Your task to perform on an android device: add a label to a message in the gmail app Image 0: 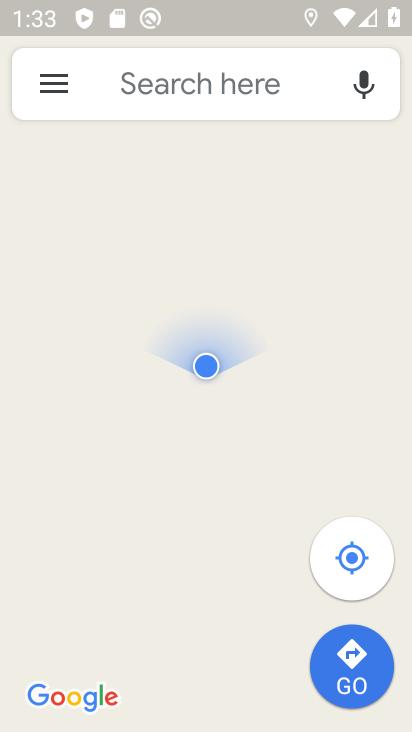
Step 0: press home button
Your task to perform on an android device: add a label to a message in the gmail app Image 1: 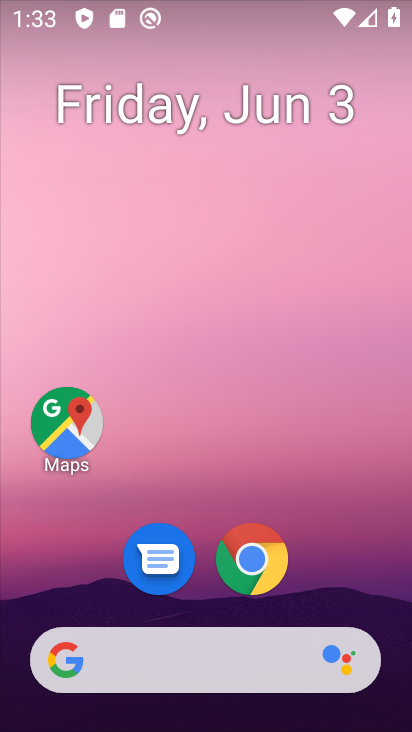
Step 1: drag from (331, 583) to (295, 245)
Your task to perform on an android device: add a label to a message in the gmail app Image 2: 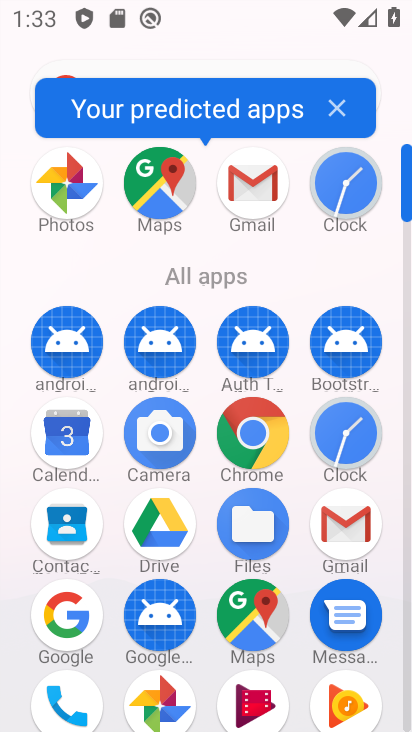
Step 2: click (338, 526)
Your task to perform on an android device: add a label to a message in the gmail app Image 3: 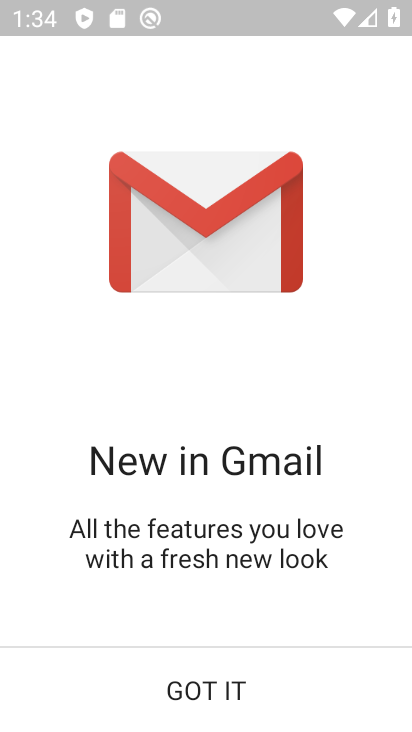
Step 3: click (203, 690)
Your task to perform on an android device: add a label to a message in the gmail app Image 4: 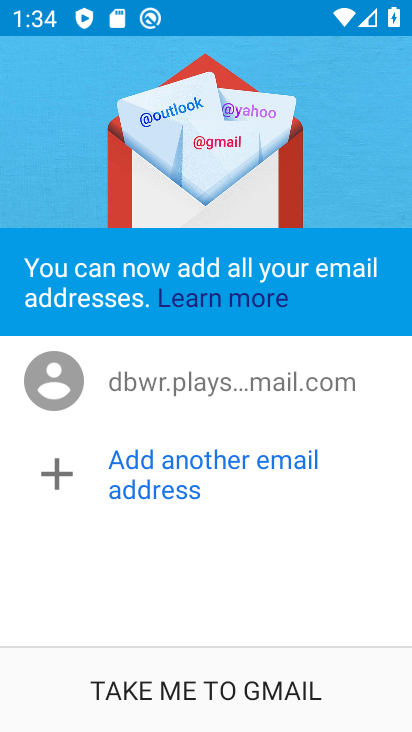
Step 4: click (203, 690)
Your task to perform on an android device: add a label to a message in the gmail app Image 5: 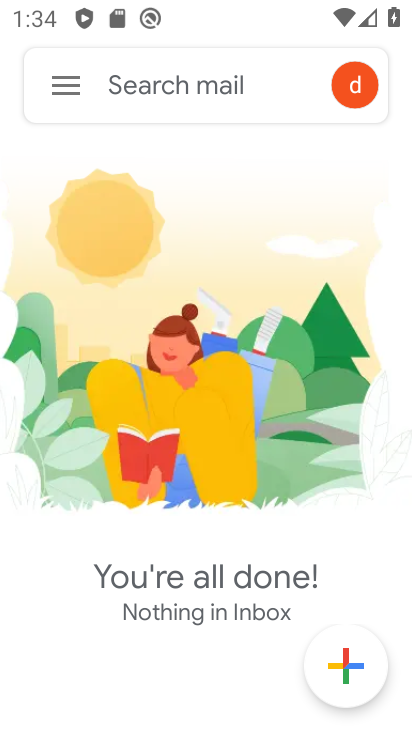
Step 5: click (68, 92)
Your task to perform on an android device: add a label to a message in the gmail app Image 6: 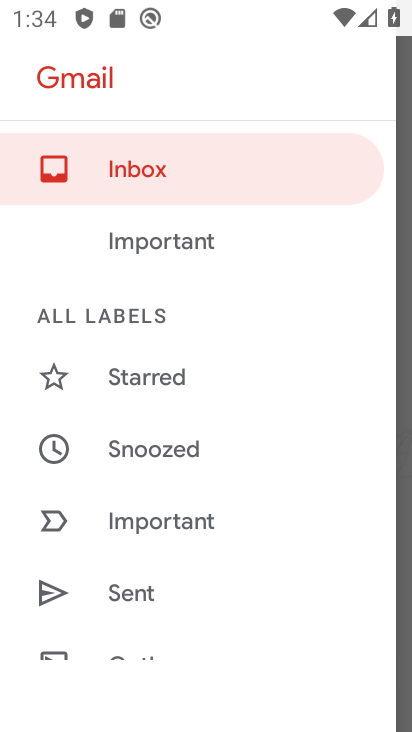
Step 6: drag from (163, 565) to (136, 218)
Your task to perform on an android device: add a label to a message in the gmail app Image 7: 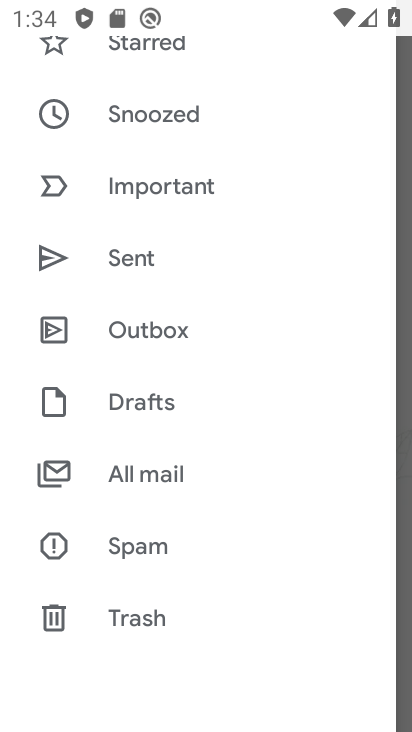
Step 7: click (147, 475)
Your task to perform on an android device: add a label to a message in the gmail app Image 8: 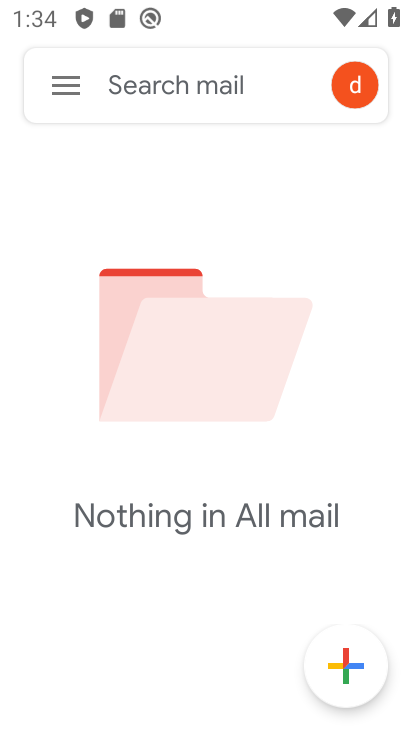
Step 8: task complete